Your task to perform on an android device: create a new album in the google photos Image 0: 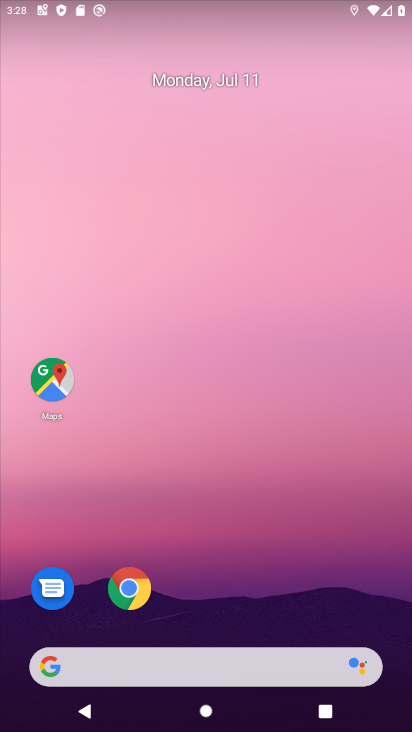
Step 0: drag from (258, 616) to (330, 232)
Your task to perform on an android device: create a new album in the google photos Image 1: 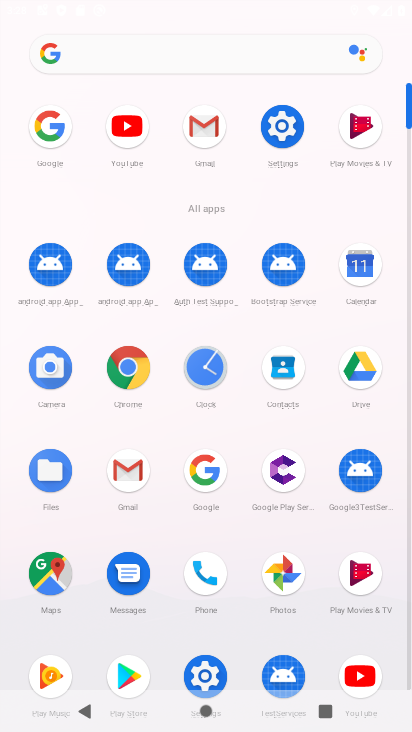
Step 1: click (287, 574)
Your task to perform on an android device: create a new album in the google photos Image 2: 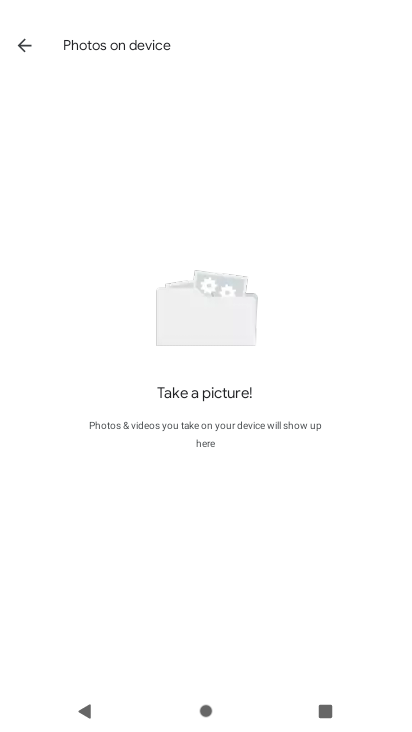
Step 2: click (20, 40)
Your task to perform on an android device: create a new album in the google photos Image 3: 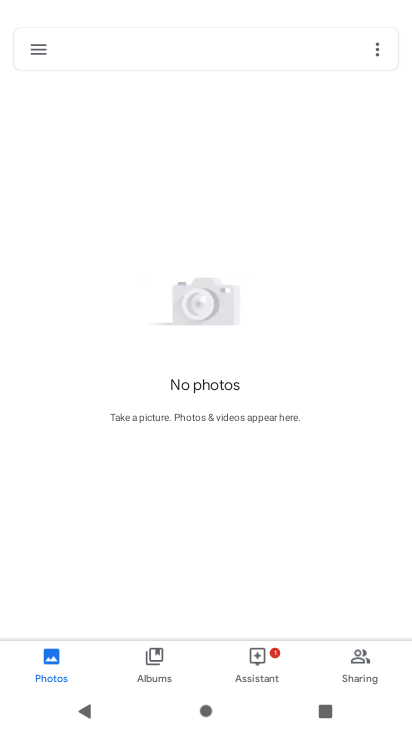
Step 3: click (369, 668)
Your task to perform on an android device: create a new album in the google photos Image 4: 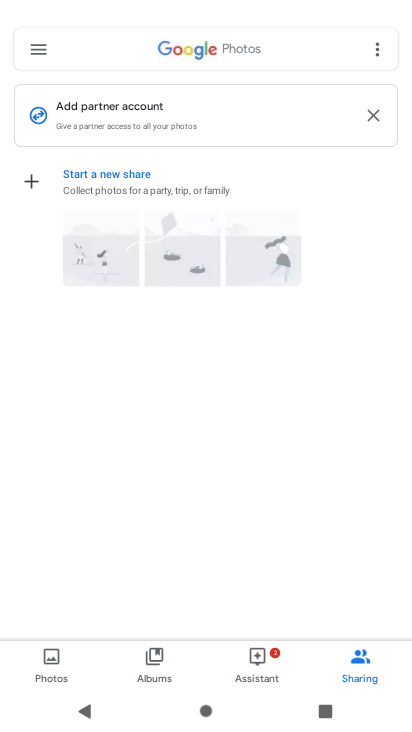
Step 4: click (164, 669)
Your task to perform on an android device: create a new album in the google photos Image 5: 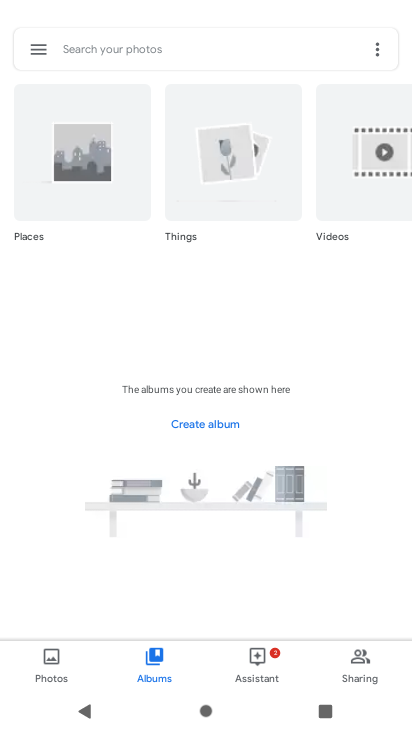
Step 5: click (208, 416)
Your task to perform on an android device: create a new album in the google photos Image 6: 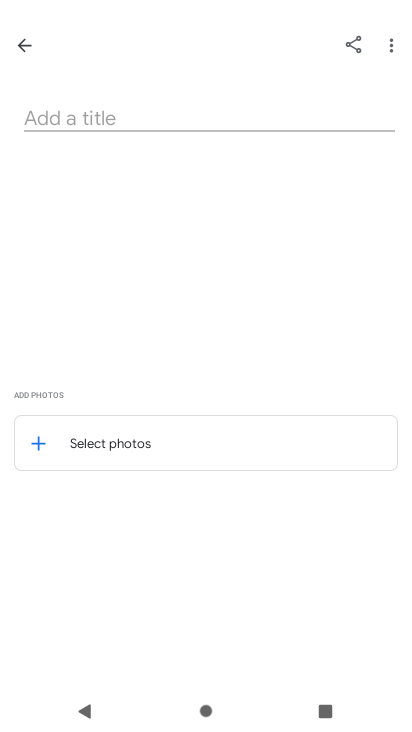
Step 6: click (173, 439)
Your task to perform on an android device: create a new album in the google photos Image 7: 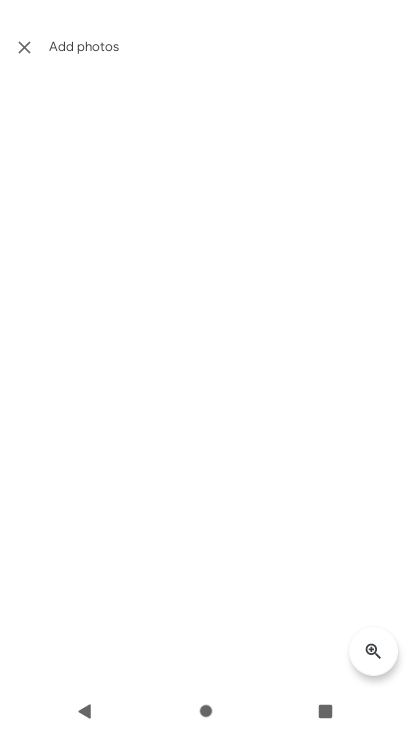
Step 7: task complete